Your task to perform on an android device: Toggle the flashlight Image 0: 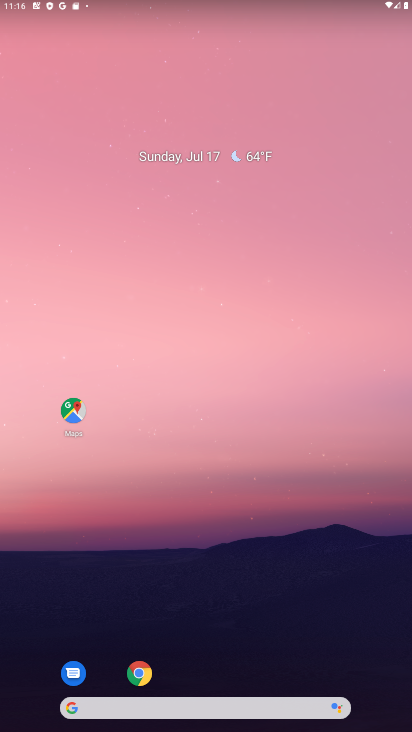
Step 0: drag from (219, 681) to (231, 70)
Your task to perform on an android device: Toggle the flashlight Image 1: 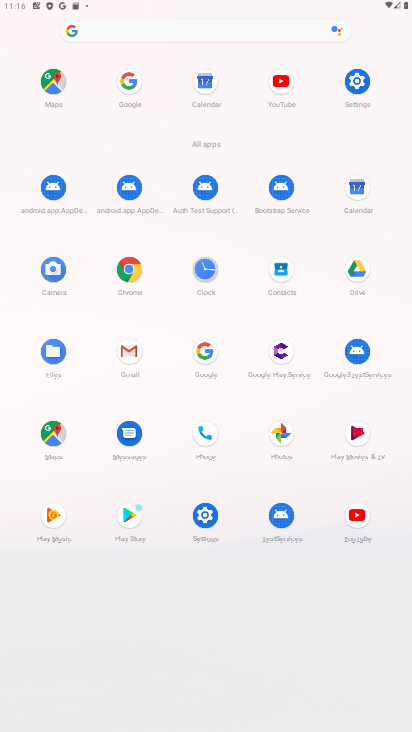
Step 1: click (360, 82)
Your task to perform on an android device: Toggle the flashlight Image 2: 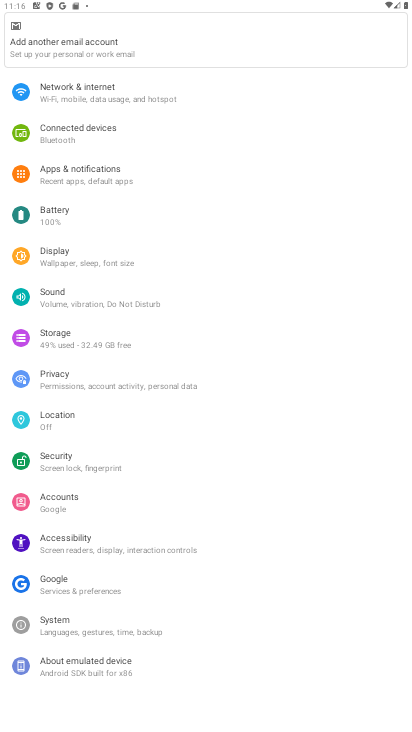
Step 2: drag from (161, 40) to (182, 332)
Your task to perform on an android device: Toggle the flashlight Image 3: 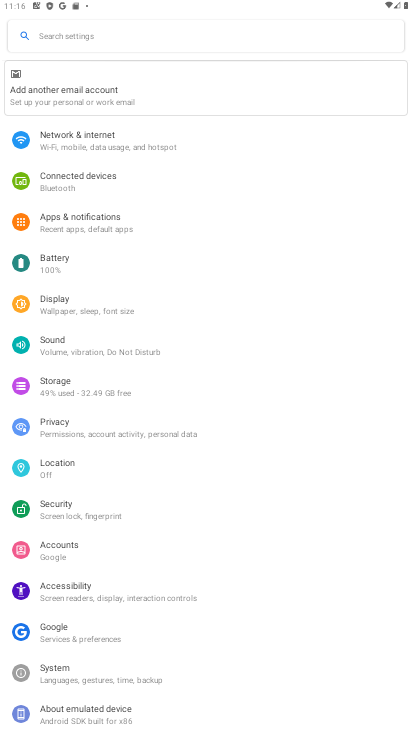
Step 3: click (131, 33)
Your task to perform on an android device: Toggle the flashlight Image 4: 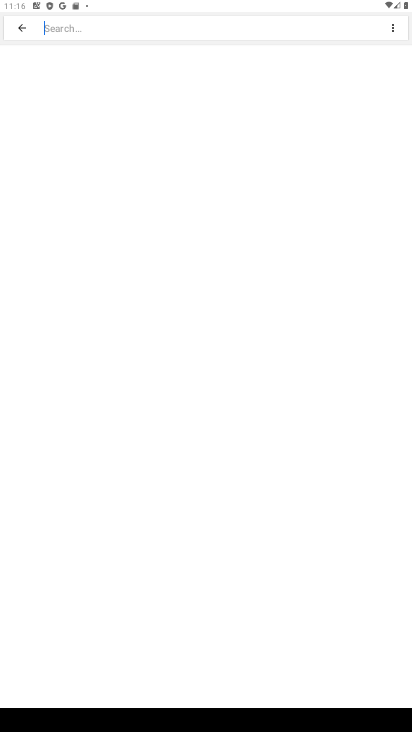
Step 4: type "flashlight"
Your task to perform on an android device: Toggle the flashlight Image 5: 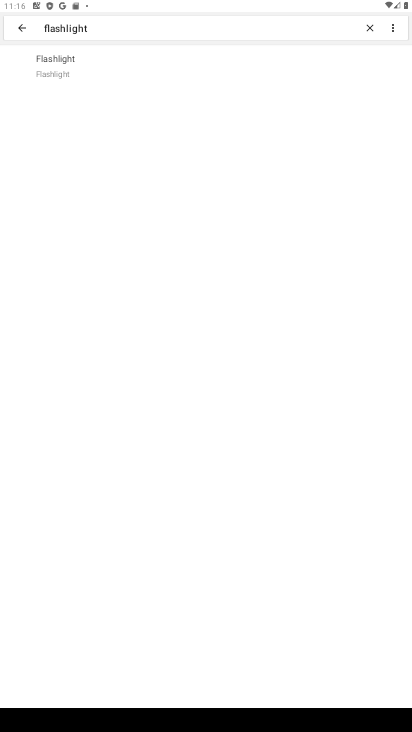
Step 5: task complete